Your task to perform on an android device: turn on wifi Image 0: 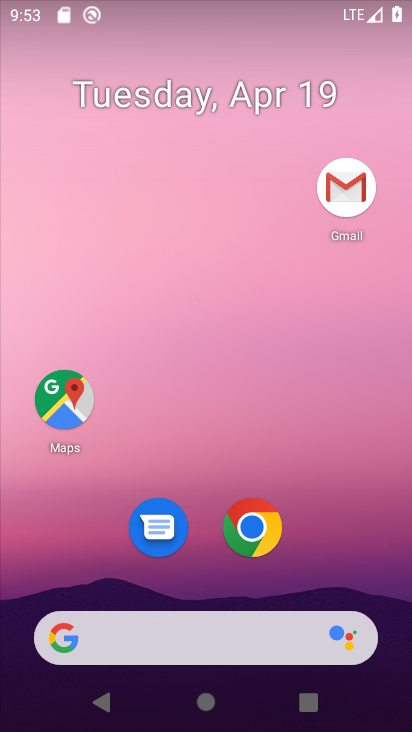
Step 0: drag from (356, 536) to (261, 26)
Your task to perform on an android device: turn on wifi Image 1: 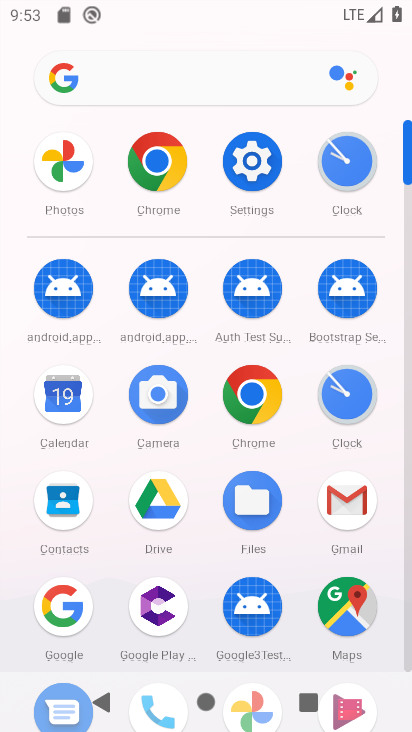
Step 1: click (243, 169)
Your task to perform on an android device: turn on wifi Image 2: 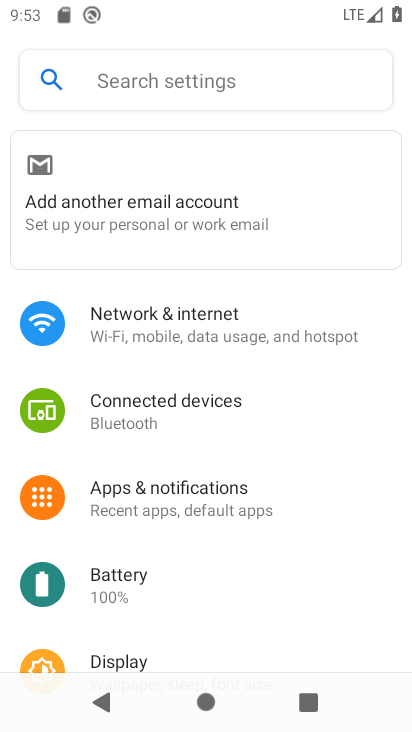
Step 2: click (226, 324)
Your task to perform on an android device: turn on wifi Image 3: 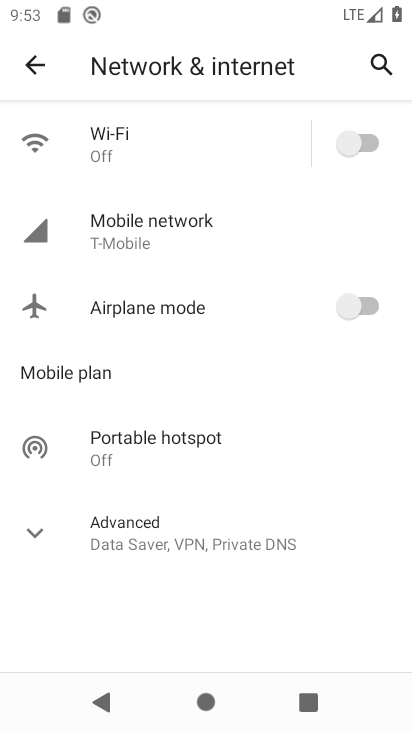
Step 3: click (365, 135)
Your task to perform on an android device: turn on wifi Image 4: 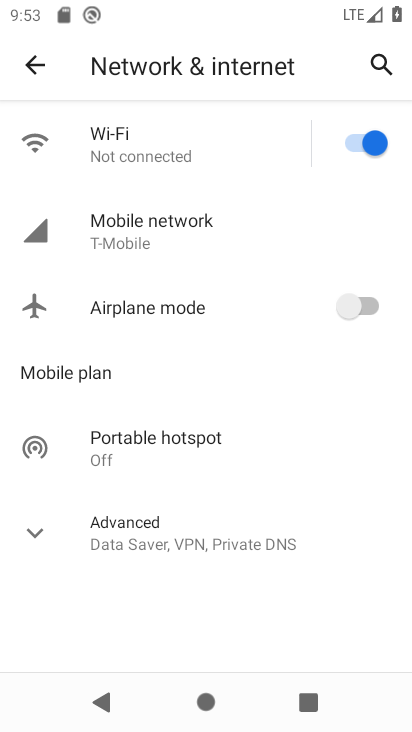
Step 4: task complete